Your task to perform on an android device: all mails in gmail Image 0: 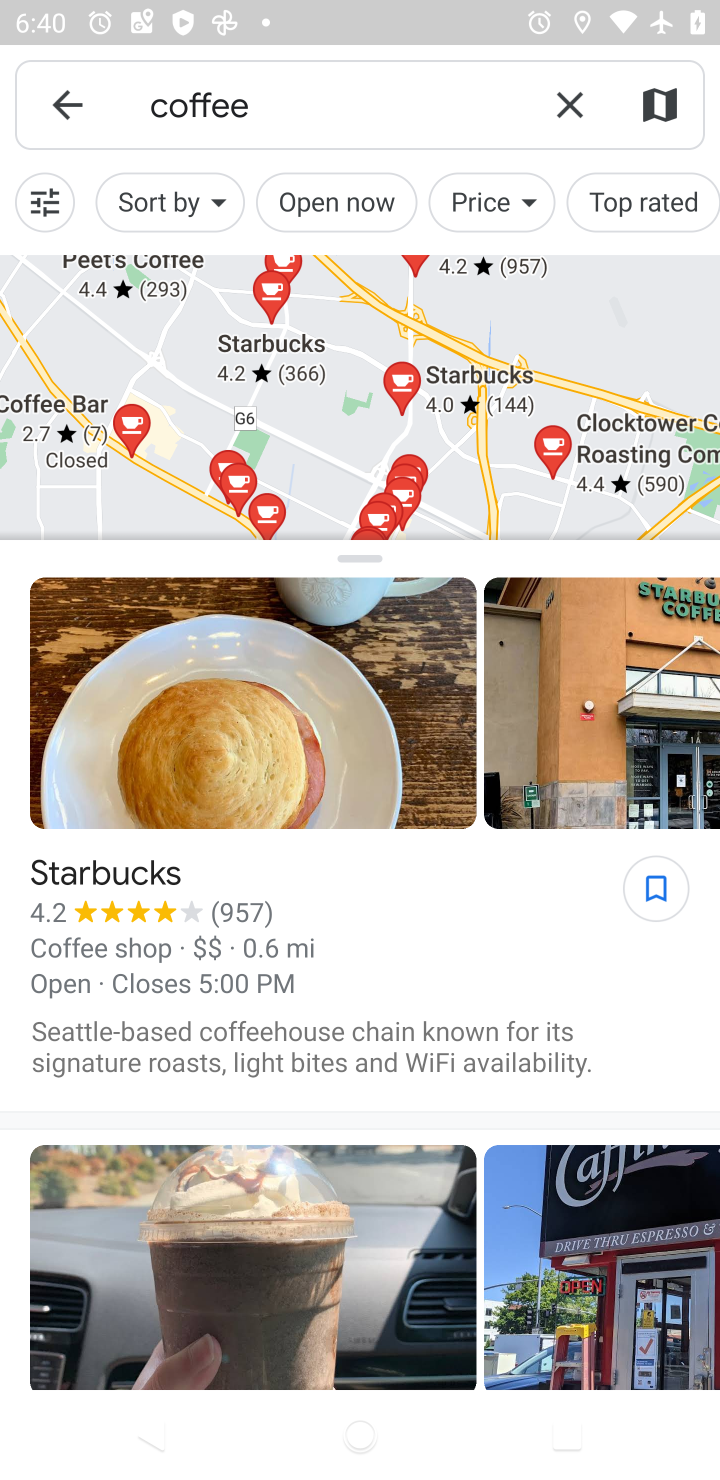
Step 0: press home button
Your task to perform on an android device: all mails in gmail Image 1: 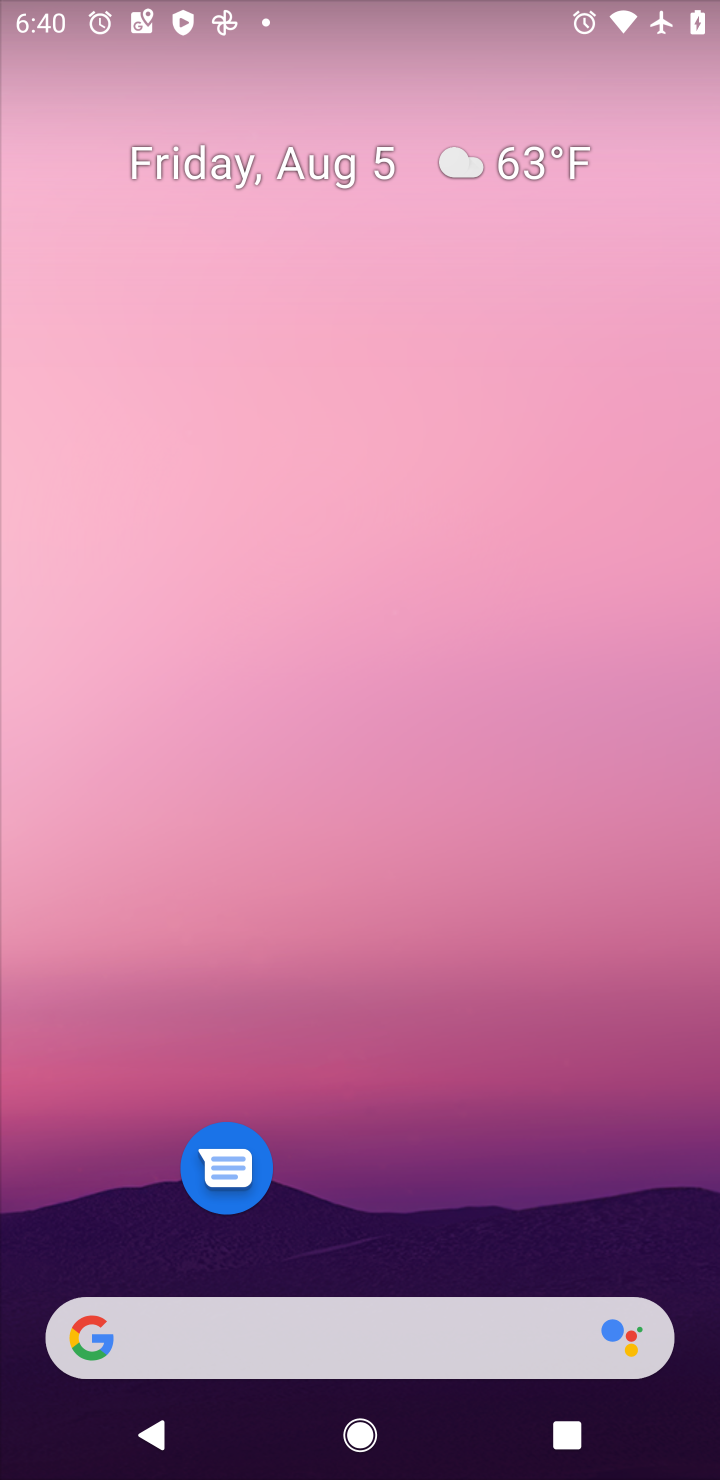
Step 1: drag from (406, 1008) to (358, 379)
Your task to perform on an android device: all mails in gmail Image 2: 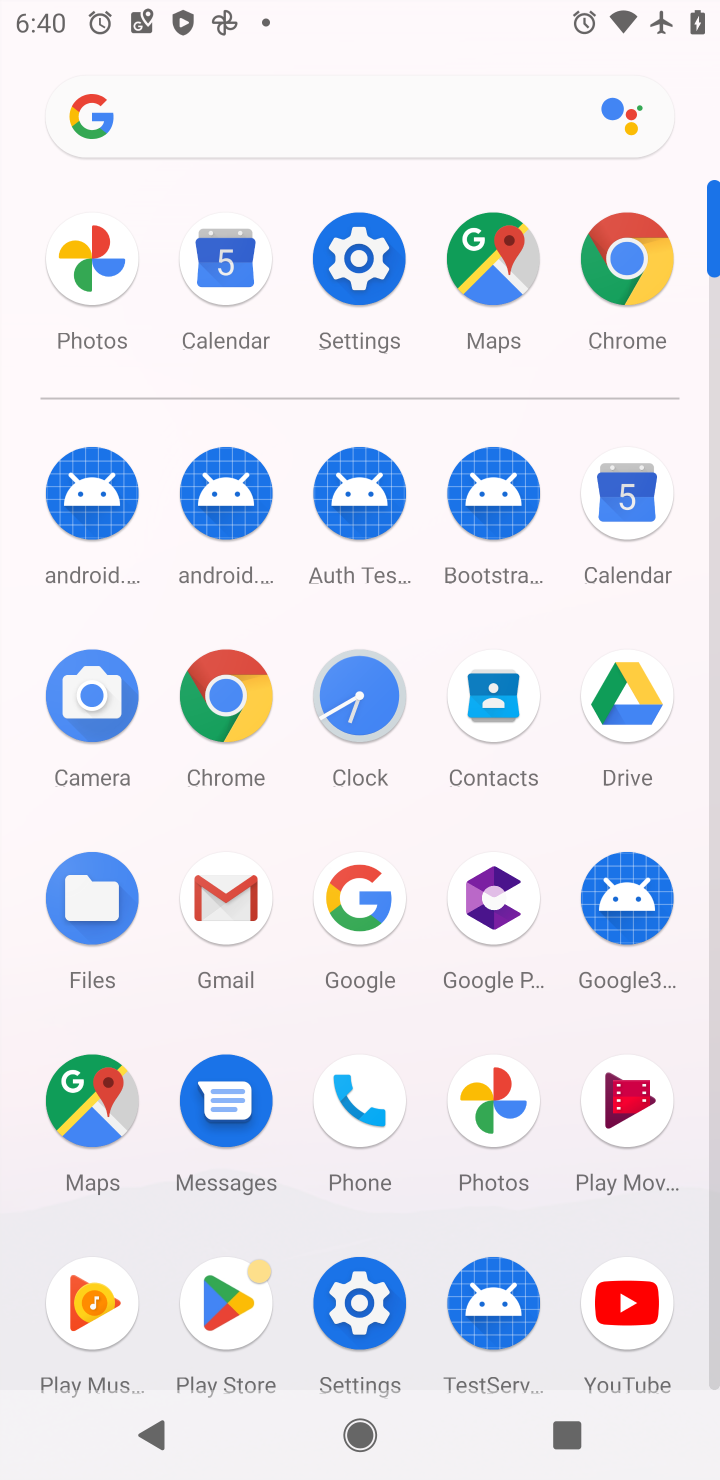
Step 2: click (224, 911)
Your task to perform on an android device: all mails in gmail Image 3: 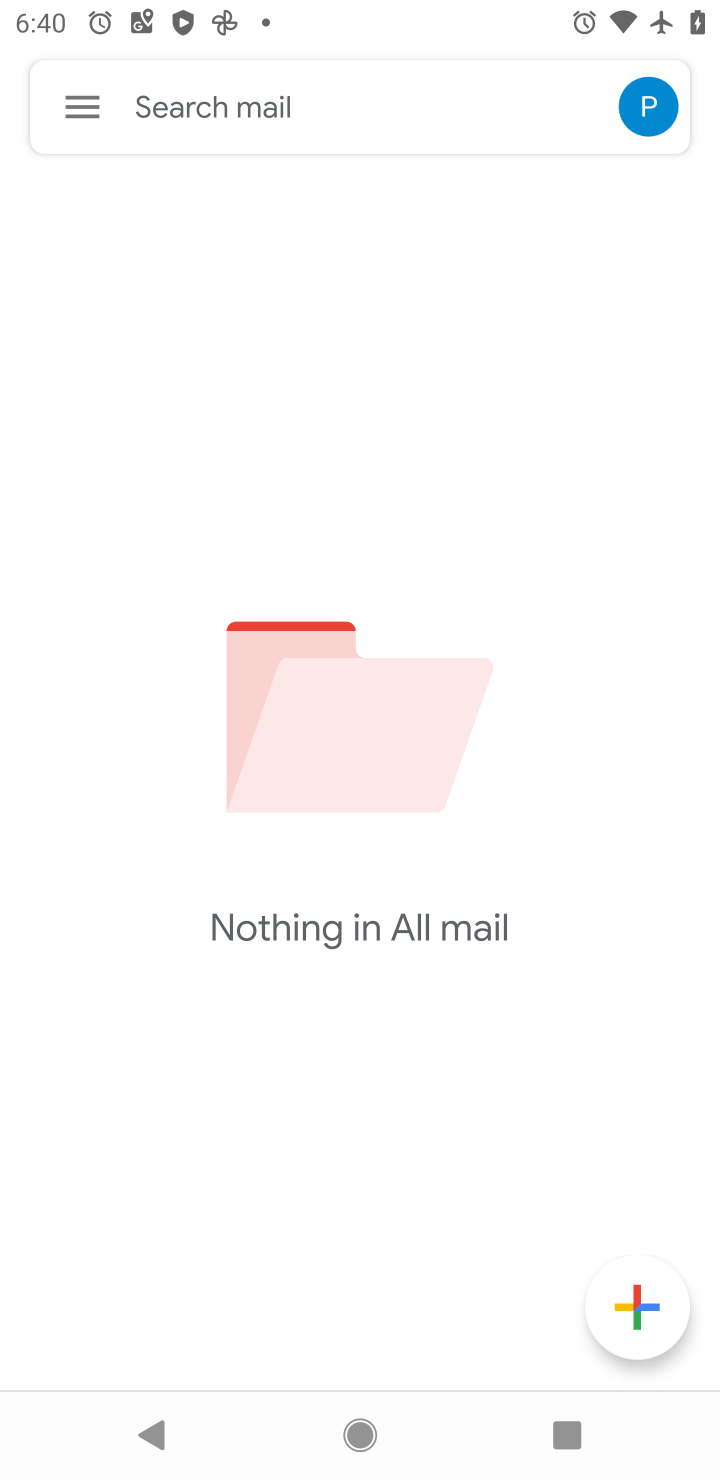
Step 3: click (85, 113)
Your task to perform on an android device: all mails in gmail Image 4: 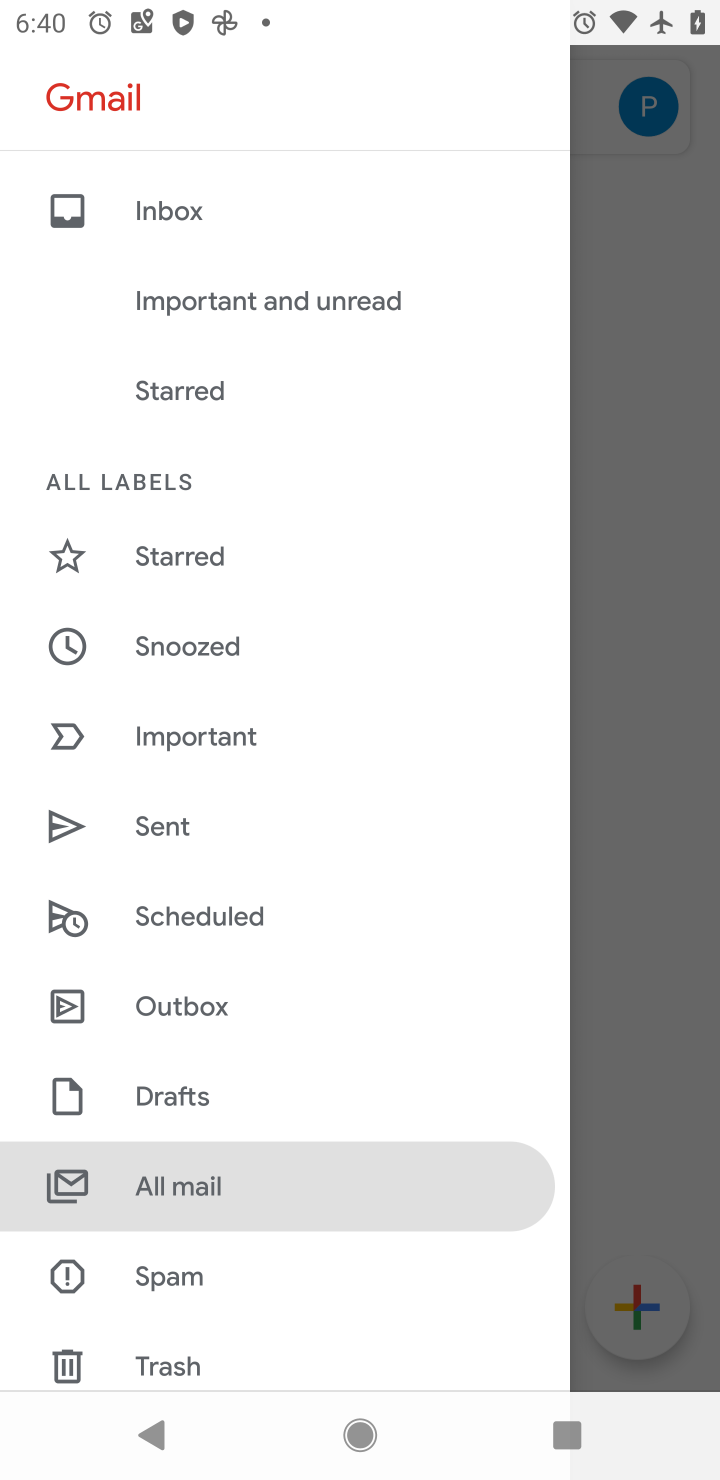
Step 4: click (207, 1174)
Your task to perform on an android device: all mails in gmail Image 5: 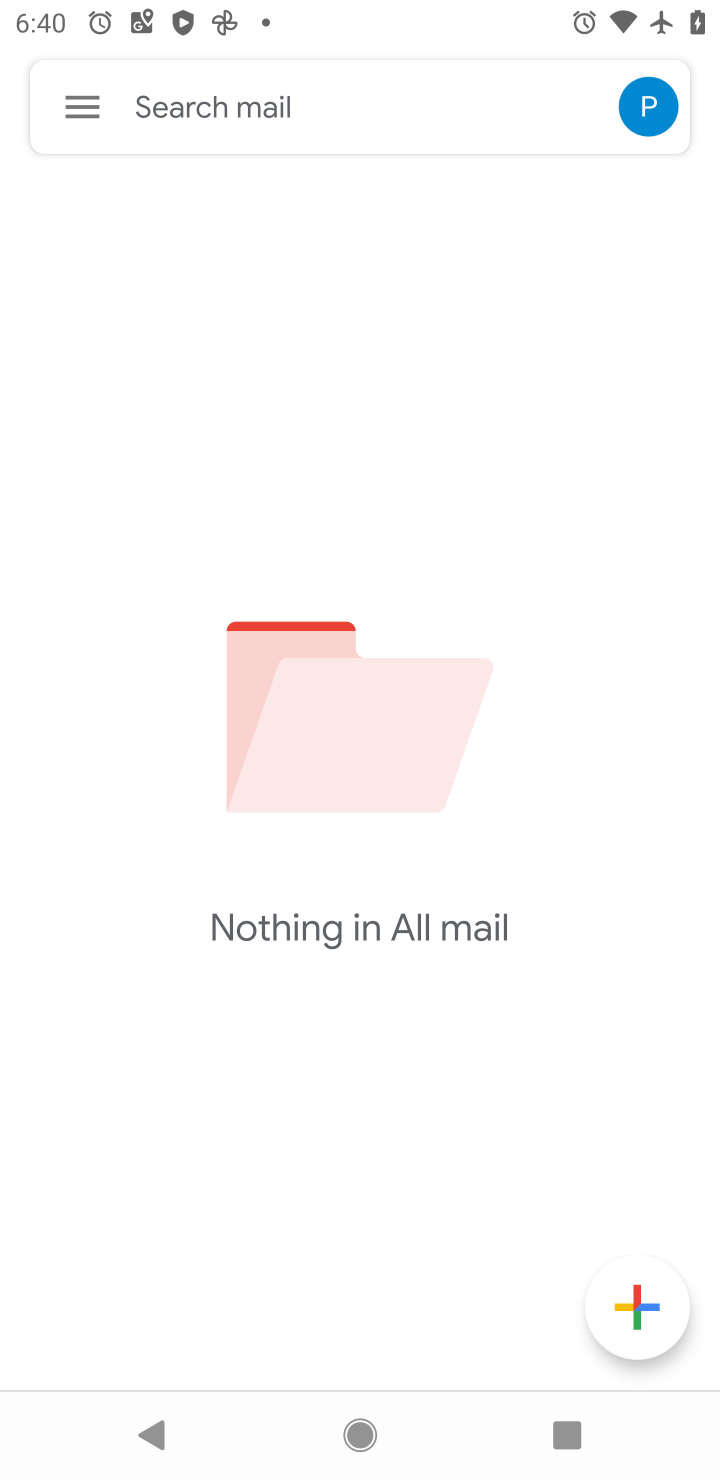
Step 5: task complete